Your task to perform on an android device: Set the phone to "Do not disturb". Image 0: 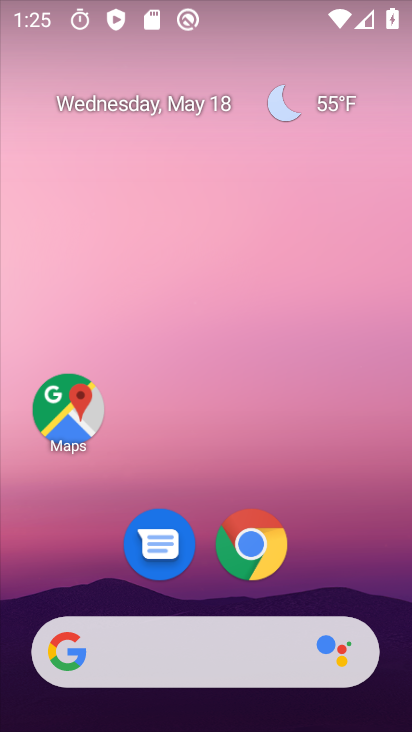
Step 0: drag from (330, 564) to (314, 233)
Your task to perform on an android device: Set the phone to "Do not disturb". Image 1: 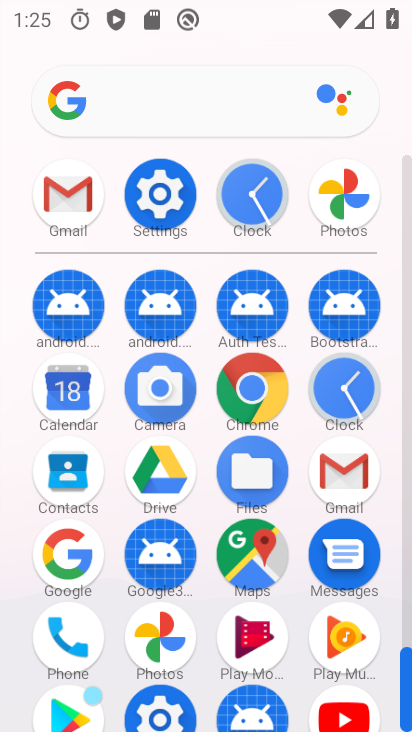
Step 1: click (166, 202)
Your task to perform on an android device: Set the phone to "Do not disturb". Image 2: 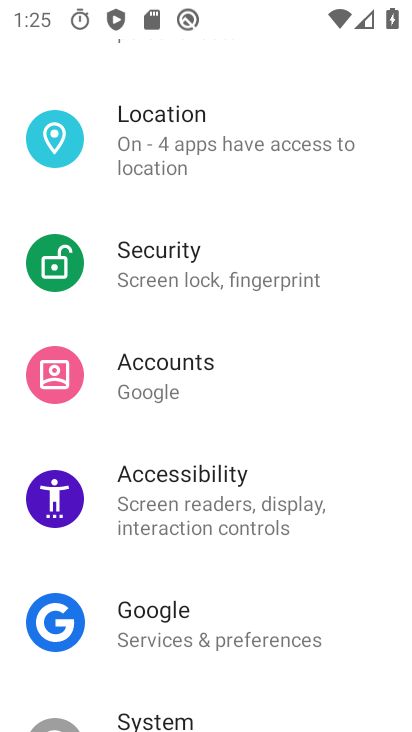
Step 2: drag from (264, 199) to (196, 509)
Your task to perform on an android device: Set the phone to "Do not disturb". Image 3: 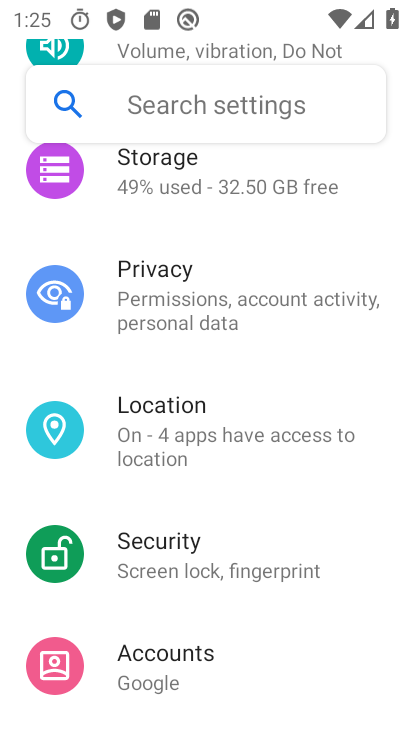
Step 3: drag from (273, 226) to (266, 519)
Your task to perform on an android device: Set the phone to "Do not disturb". Image 4: 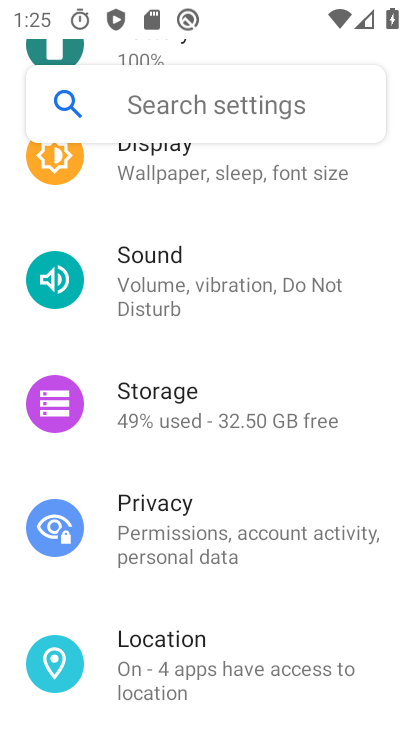
Step 4: click (239, 286)
Your task to perform on an android device: Set the phone to "Do not disturb". Image 5: 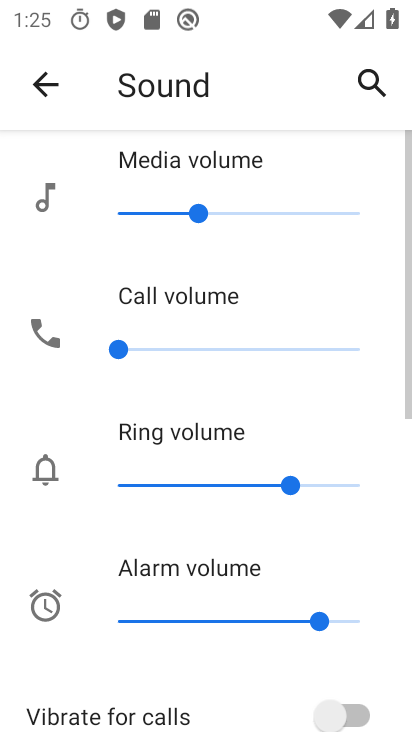
Step 5: drag from (224, 668) to (262, 371)
Your task to perform on an android device: Set the phone to "Do not disturb". Image 6: 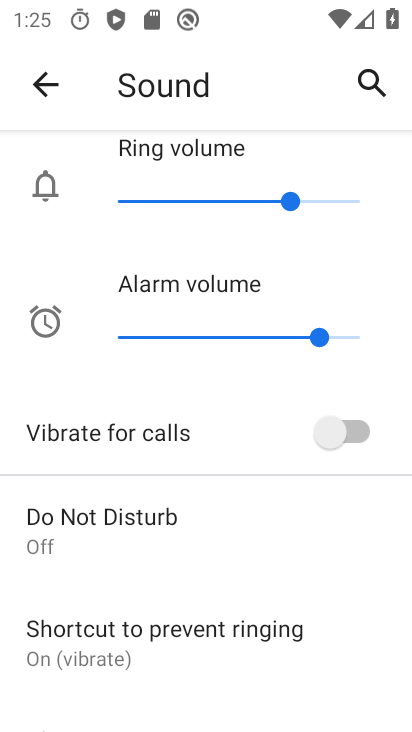
Step 6: click (97, 526)
Your task to perform on an android device: Set the phone to "Do not disturb". Image 7: 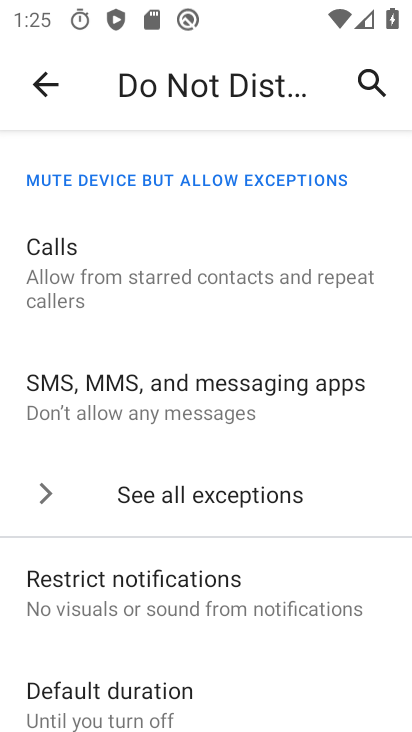
Step 7: drag from (231, 687) to (206, 274)
Your task to perform on an android device: Set the phone to "Do not disturb". Image 8: 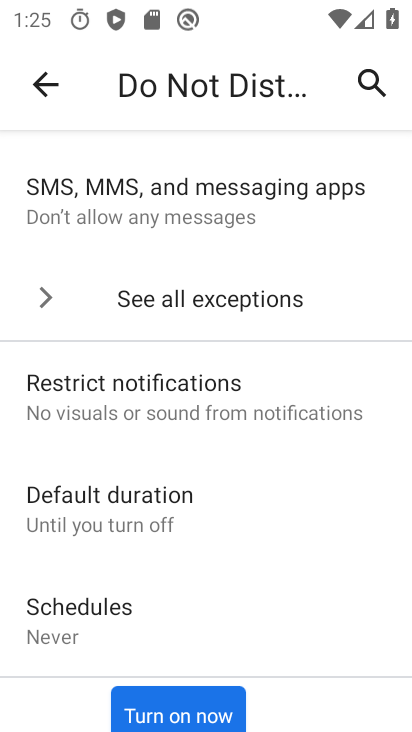
Step 8: click (182, 700)
Your task to perform on an android device: Set the phone to "Do not disturb". Image 9: 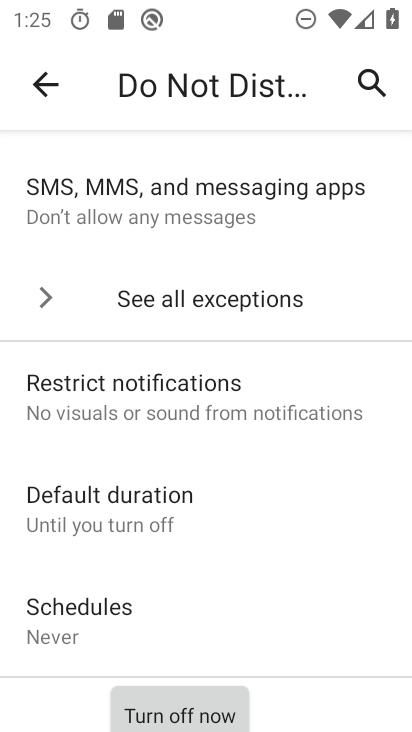
Step 9: task complete